Your task to perform on an android device: manage bookmarks in the chrome app Image 0: 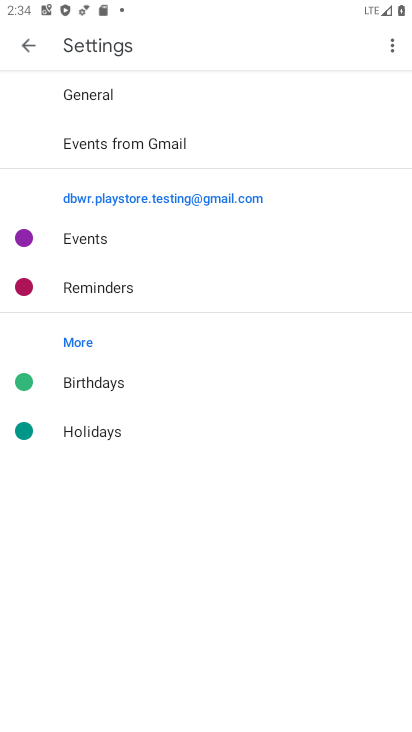
Step 0: press home button
Your task to perform on an android device: manage bookmarks in the chrome app Image 1: 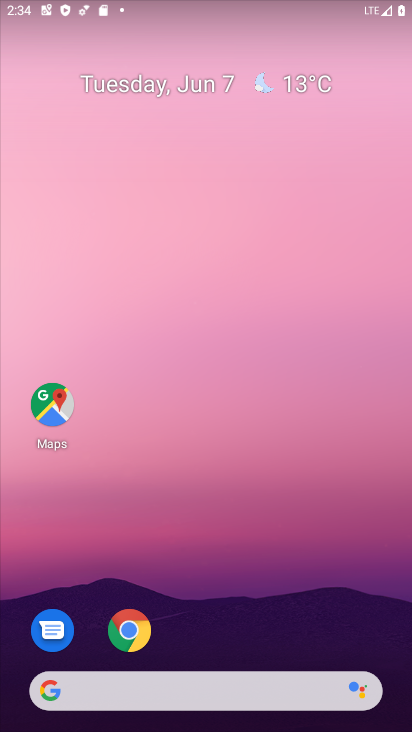
Step 1: click (141, 628)
Your task to perform on an android device: manage bookmarks in the chrome app Image 2: 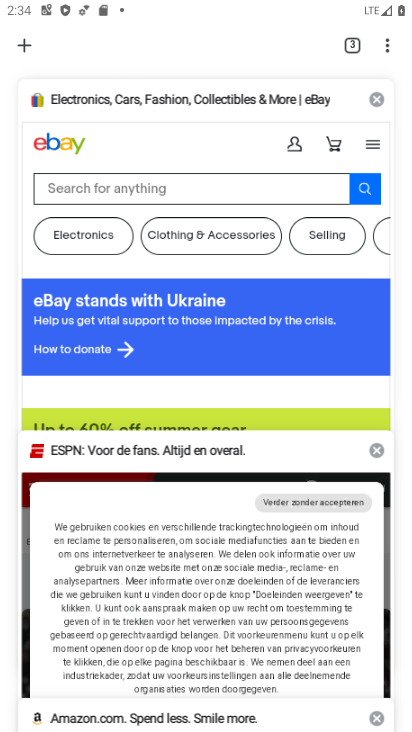
Step 2: click (388, 41)
Your task to perform on an android device: manage bookmarks in the chrome app Image 3: 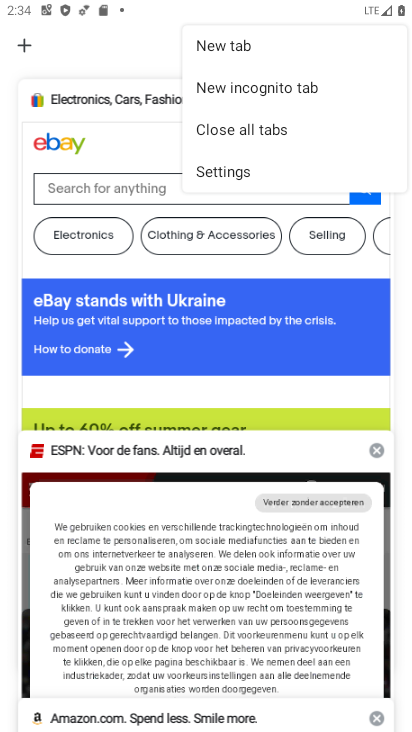
Step 3: click (17, 41)
Your task to perform on an android device: manage bookmarks in the chrome app Image 4: 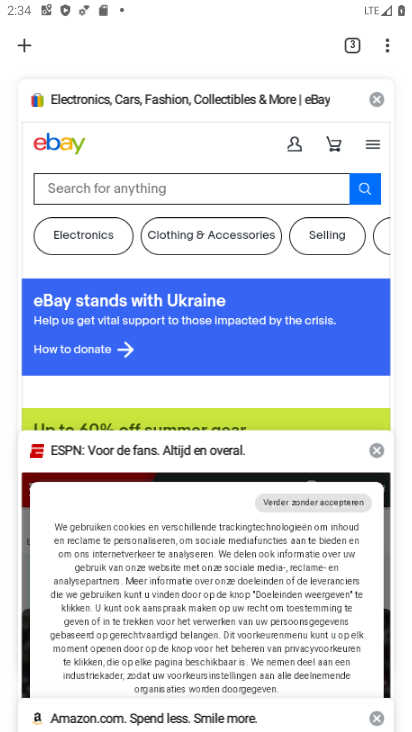
Step 4: click (20, 47)
Your task to perform on an android device: manage bookmarks in the chrome app Image 5: 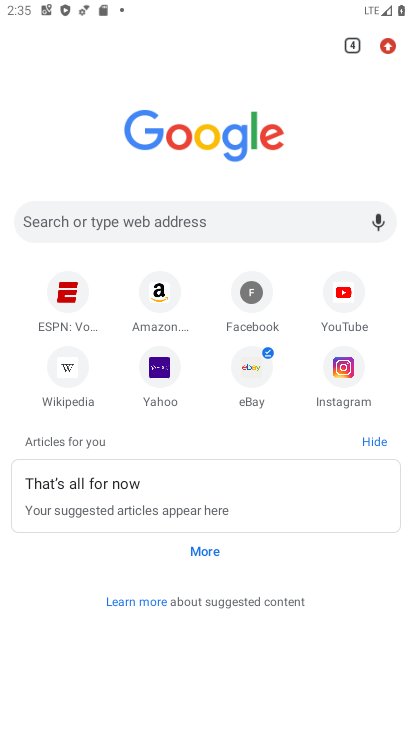
Step 5: click (385, 44)
Your task to perform on an android device: manage bookmarks in the chrome app Image 6: 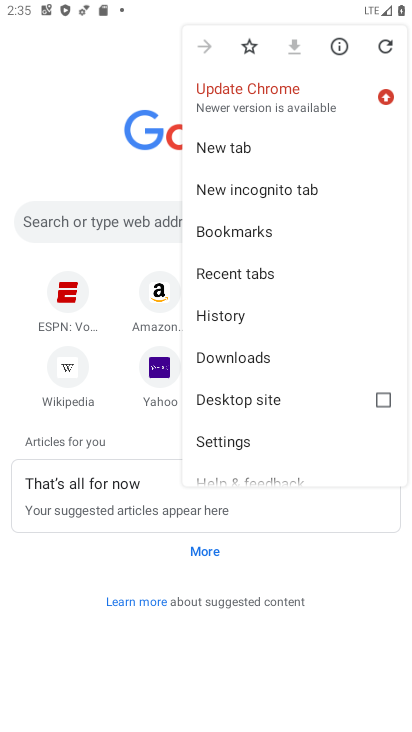
Step 6: click (252, 225)
Your task to perform on an android device: manage bookmarks in the chrome app Image 7: 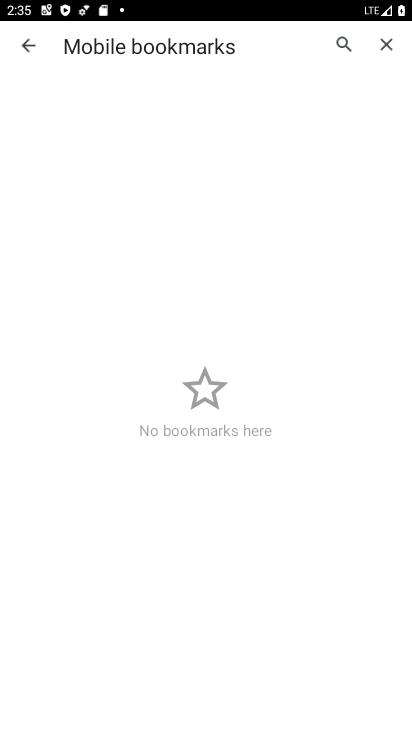
Step 7: task complete